Your task to perform on an android device: change keyboard looks Image 0: 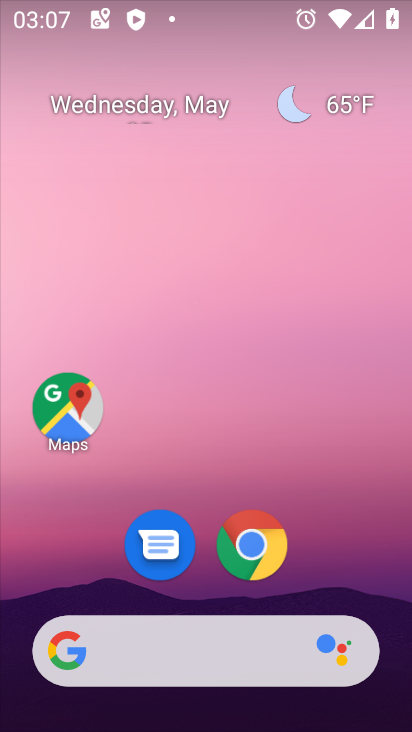
Step 0: drag from (339, 504) to (235, 82)
Your task to perform on an android device: change keyboard looks Image 1: 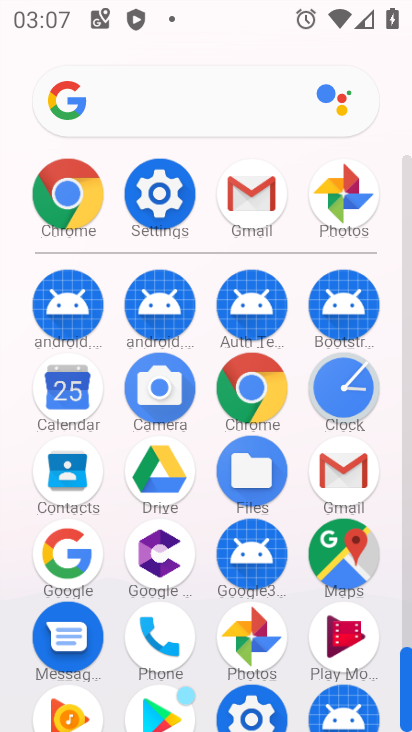
Step 1: click (171, 202)
Your task to perform on an android device: change keyboard looks Image 2: 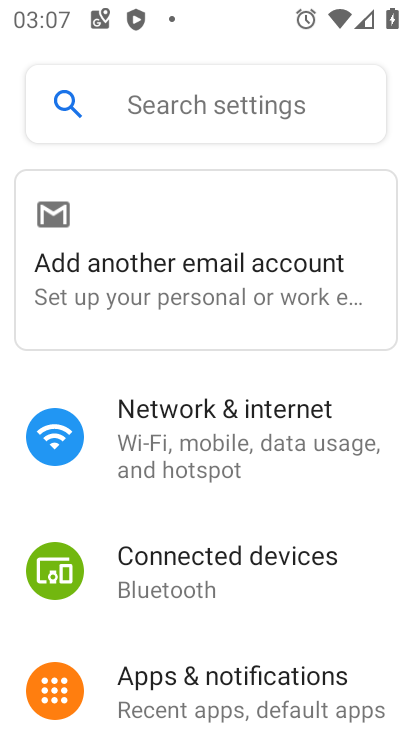
Step 2: drag from (273, 602) to (239, 129)
Your task to perform on an android device: change keyboard looks Image 3: 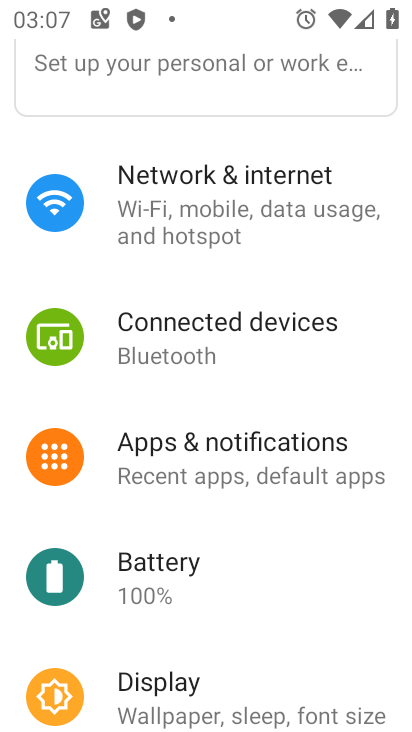
Step 3: drag from (288, 547) to (224, 134)
Your task to perform on an android device: change keyboard looks Image 4: 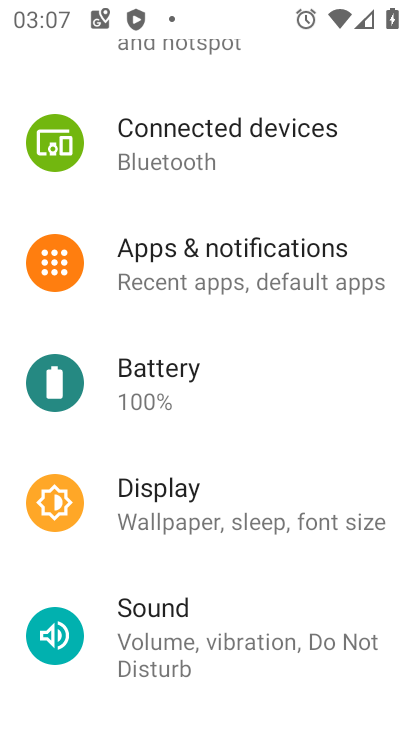
Step 4: drag from (252, 603) to (275, 152)
Your task to perform on an android device: change keyboard looks Image 5: 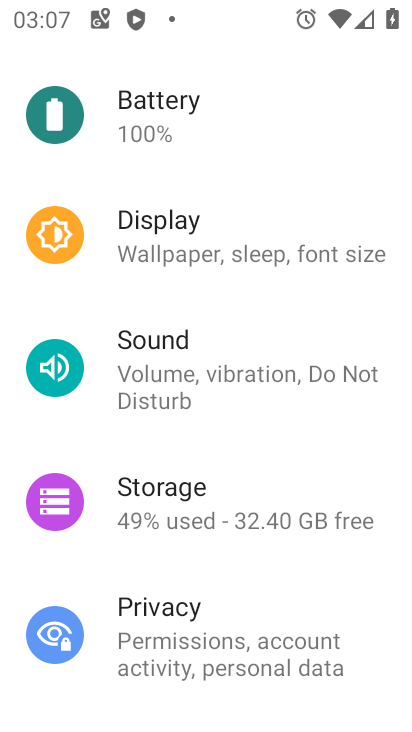
Step 5: drag from (264, 566) to (237, 261)
Your task to perform on an android device: change keyboard looks Image 6: 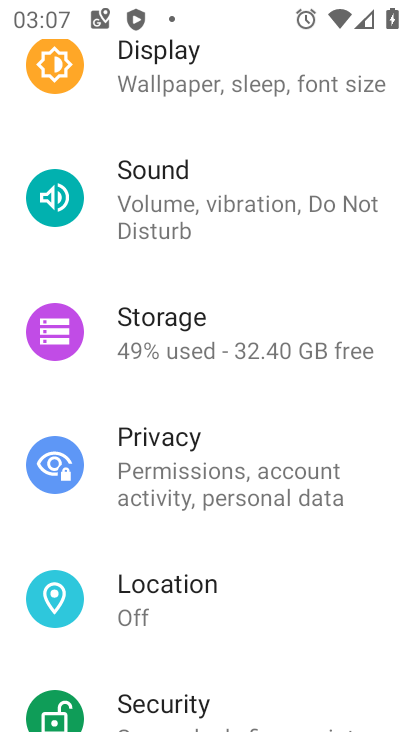
Step 6: drag from (275, 616) to (257, 269)
Your task to perform on an android device: change keyboard looks Image 7: 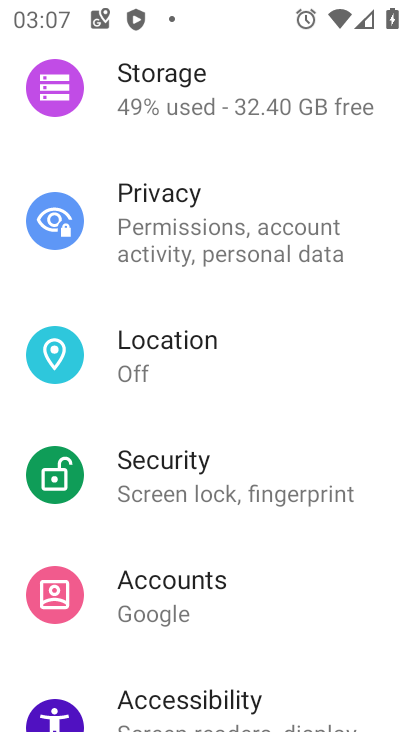
Step 7: drag from (307, 595) to (279, 243)
Your task to perform on an android device: change keyboard looks Image 8: 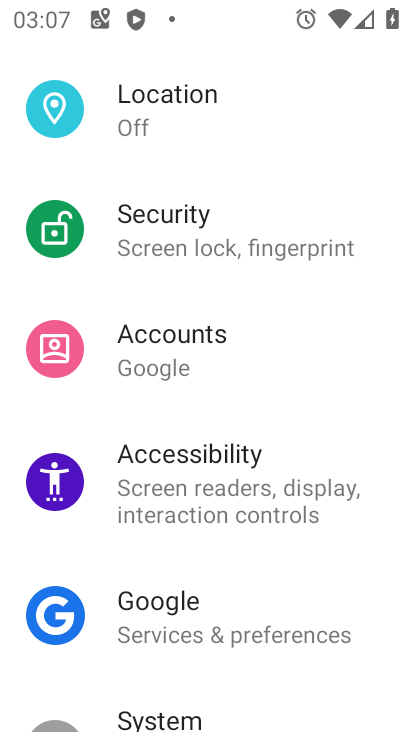
Step 8: drag from (281, 494) to (254, 156)
Your task to perform on an android device: change keyboard looks Image 9: 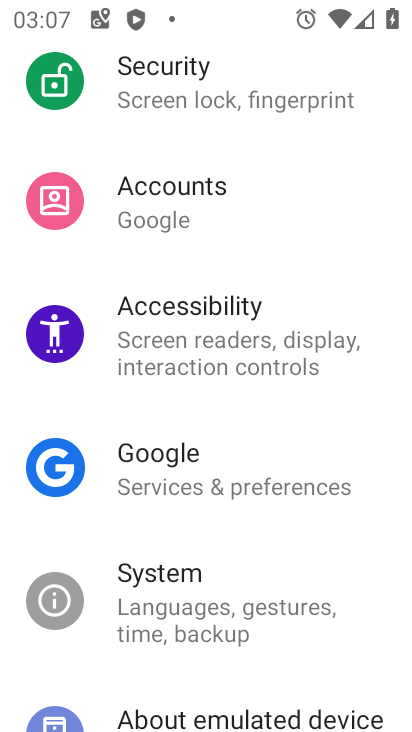
Step 9: click (201, 575)
Your task to perform on an android device: change keyboard looks Image 10: 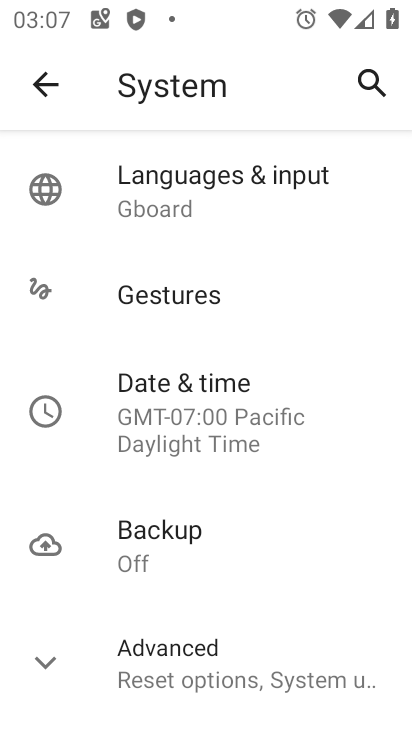
Step 10: click (214, 195)
Your task to perform on an android device: change keyboard looks Image 11: 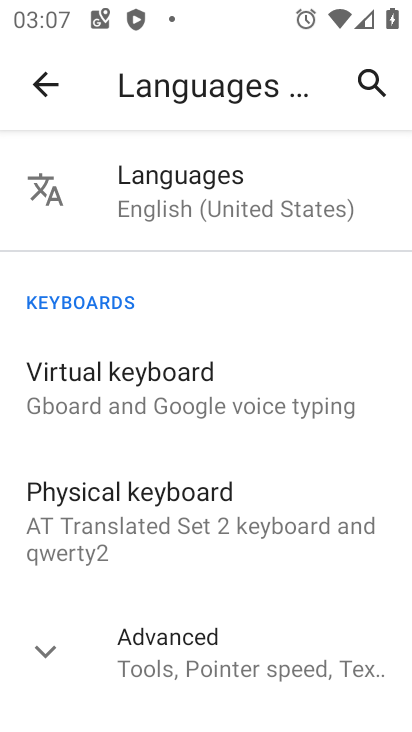
Step 11: click (156, 392)
Your task to perform on an android device: change keyboard looks Image 12: 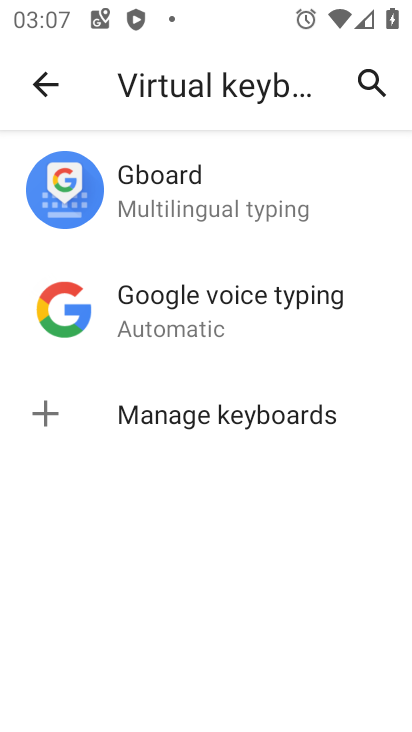
Step 12: click (158, 200)
Your task to perform on an android device: change keyboard looks Image 13: 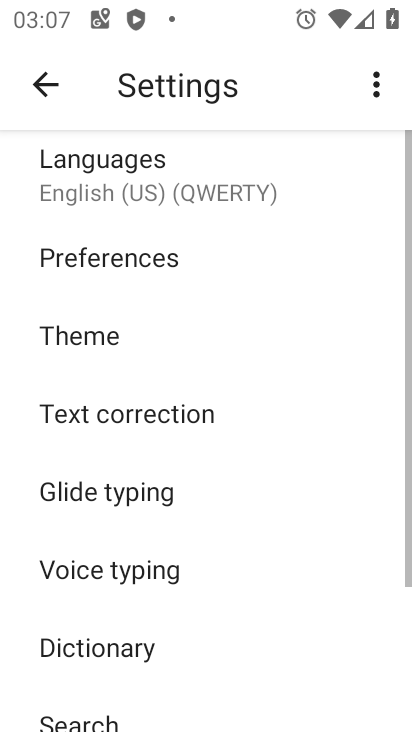
Step 13: click (160, 351)
Your task to perform on an android device: change keyboard looks Image 14: 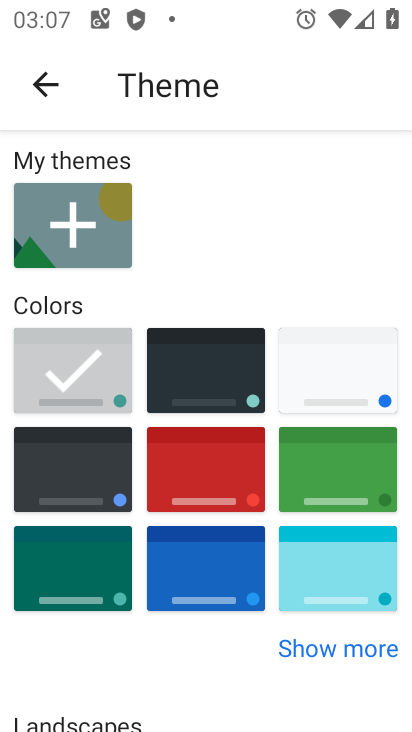
Step 14: click (215, 496)
Your task to perform on an android device: change keyboard looks Image 15: 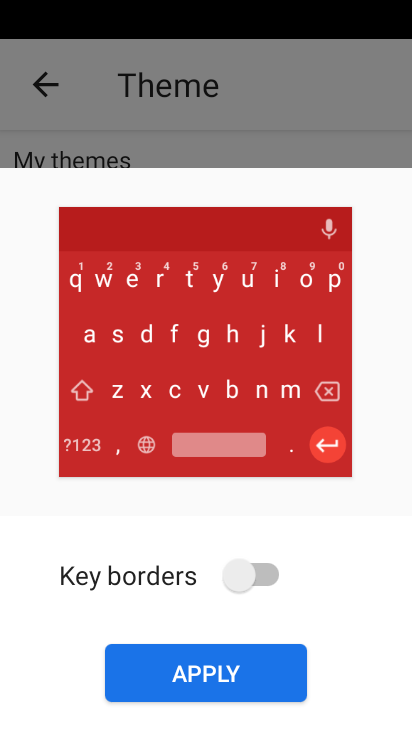
Step 15: click (215, 653)
Your task to perform on an android device: change keyboard looks Image 16: 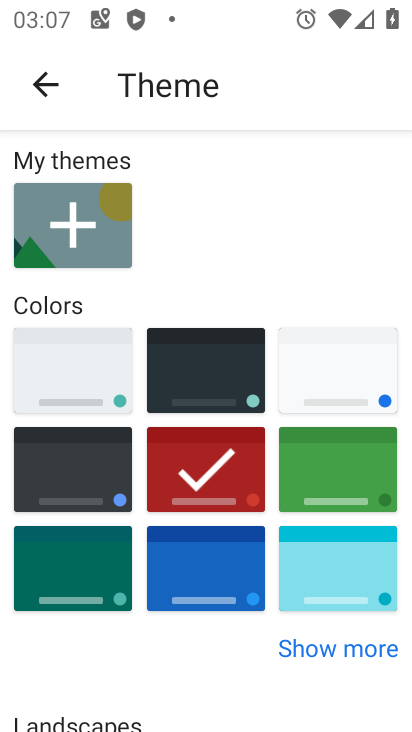
Step 16: task complete